Your task to perform on an android device: turn on priority inbox in the gmail app Image 0: 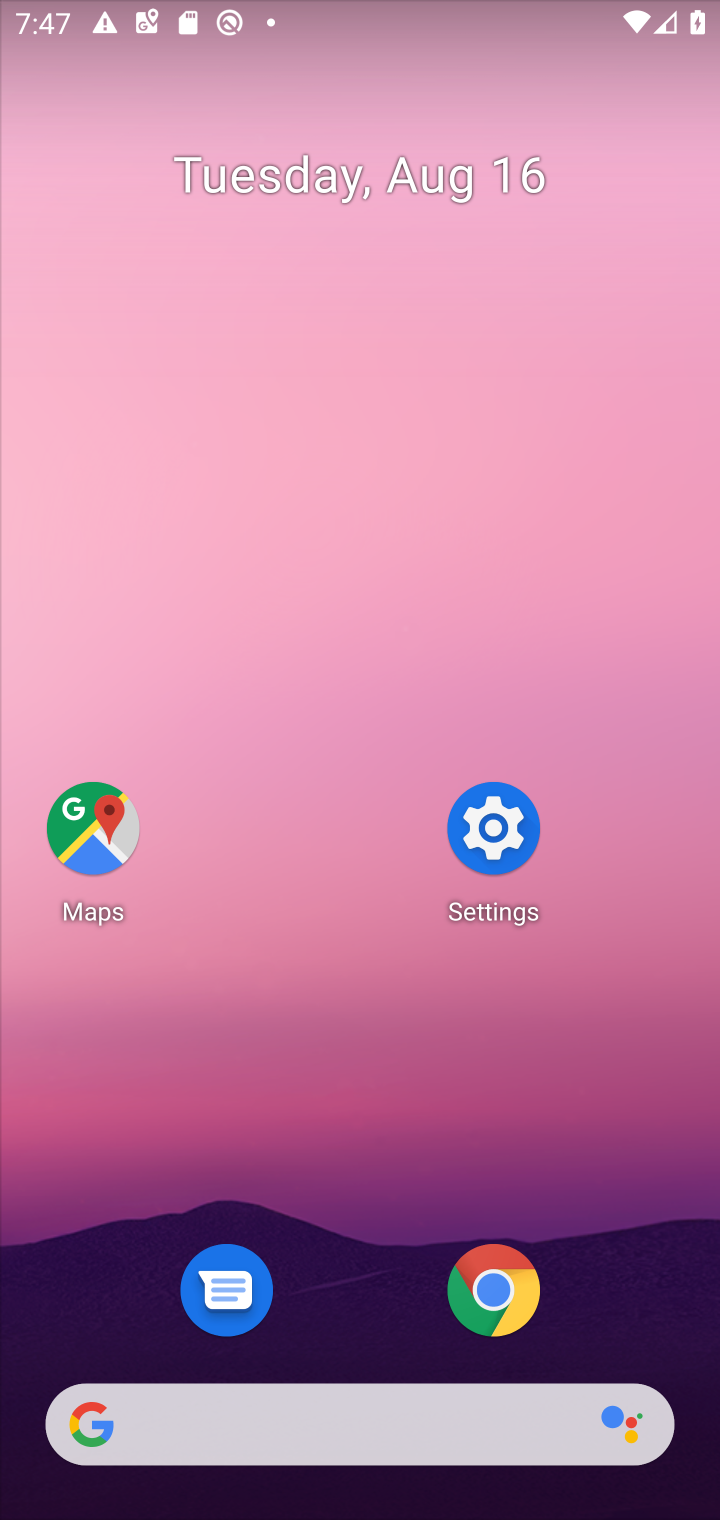
Step 0: drag from (388, 1355) to (687, 192)
Your task to perform on an android device: turn on priority inbox in the gmail app Image 1: 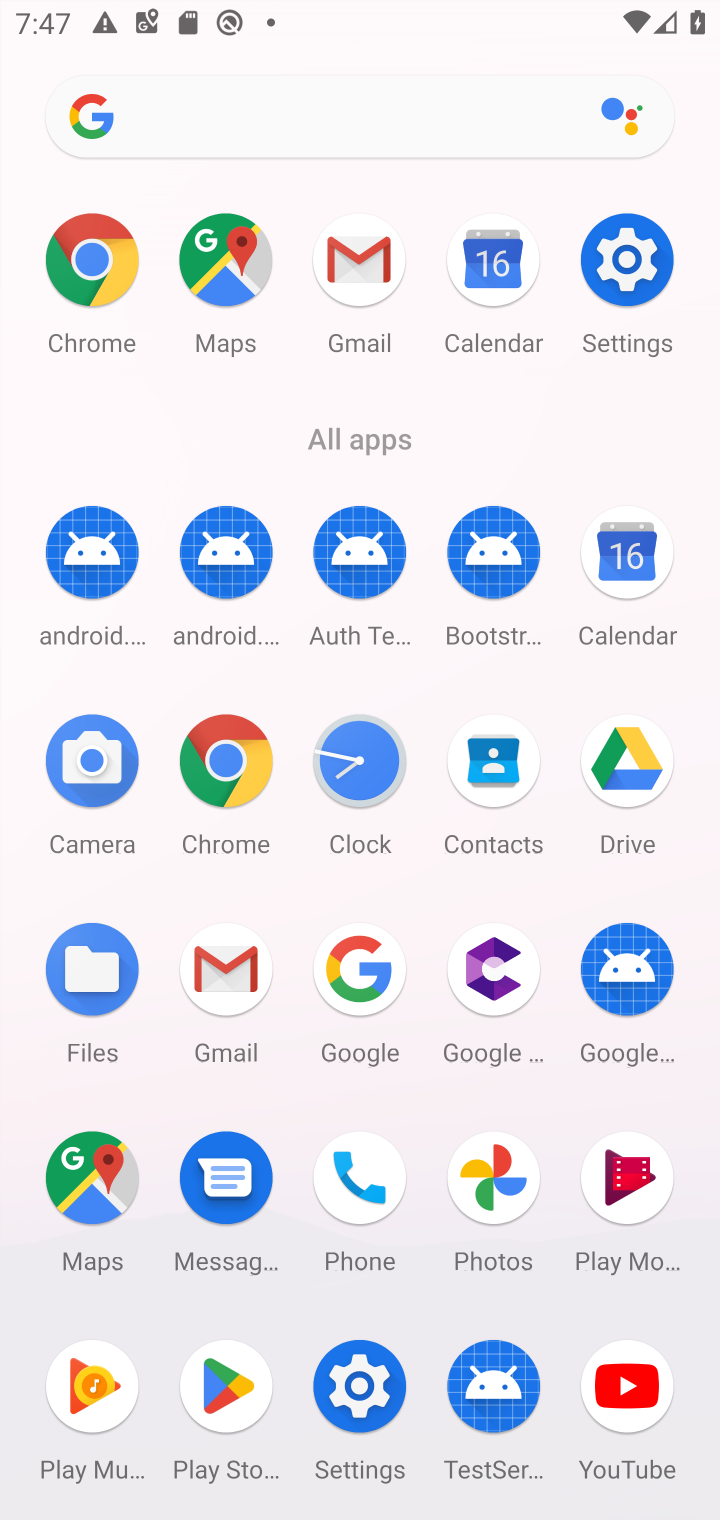
Step 1: click (368, 283)
Your task to perform on an android device: turn on priority inbox in the gmail app Image 2: 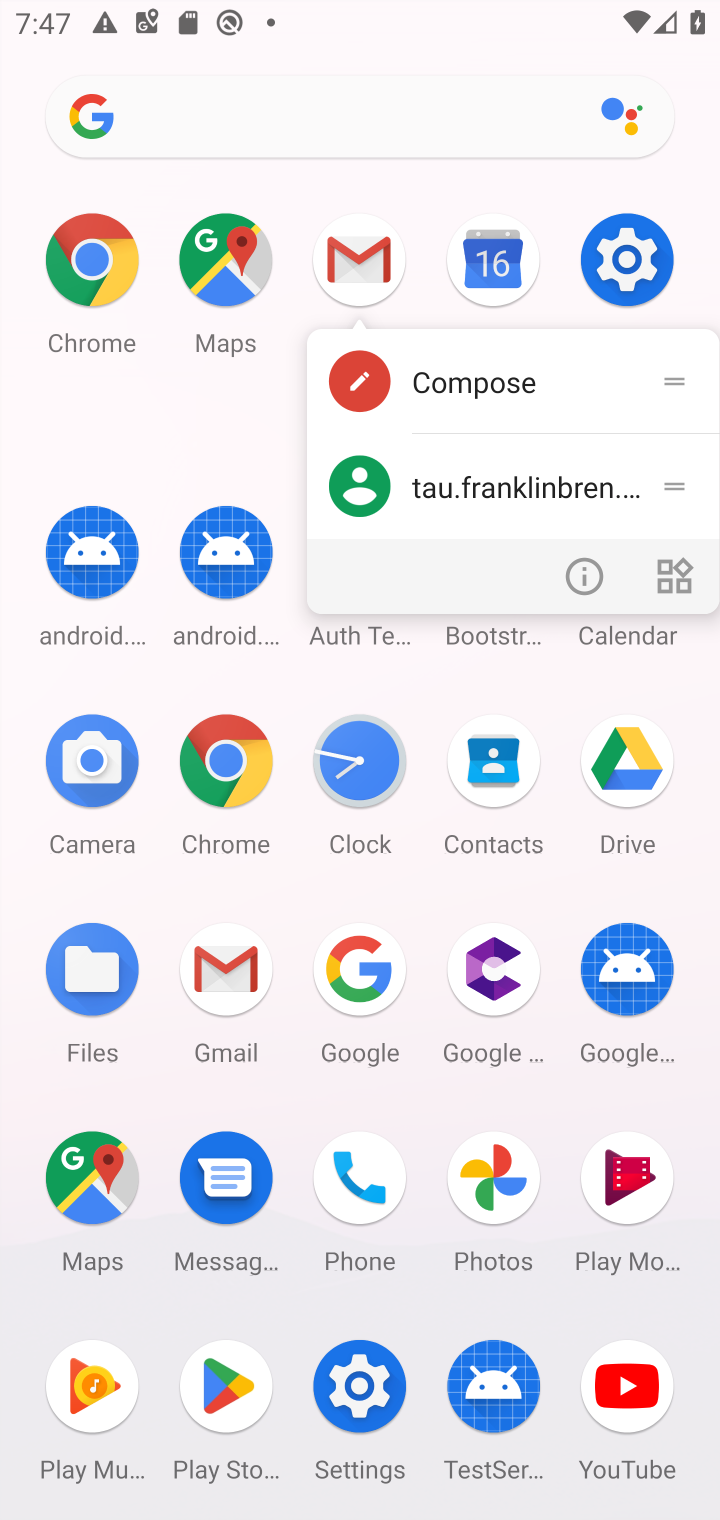
Step 2: click (355, 257)
Your task to perform on an android device: turn on priority inbox in the gmail app Image 3: 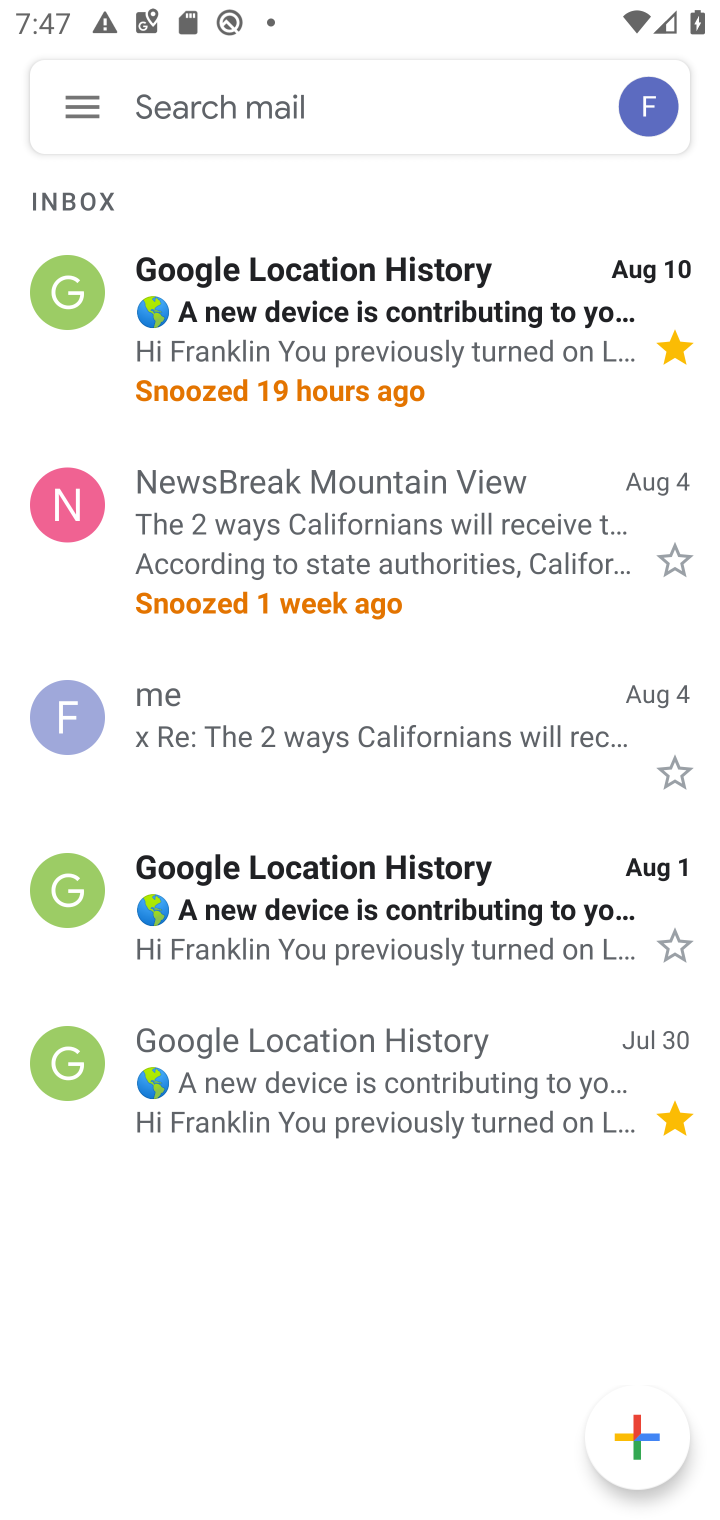
Step 3: click (81, 106)
Your task to perform on an android device: turn on priority inbox in the gmail app Image 4: 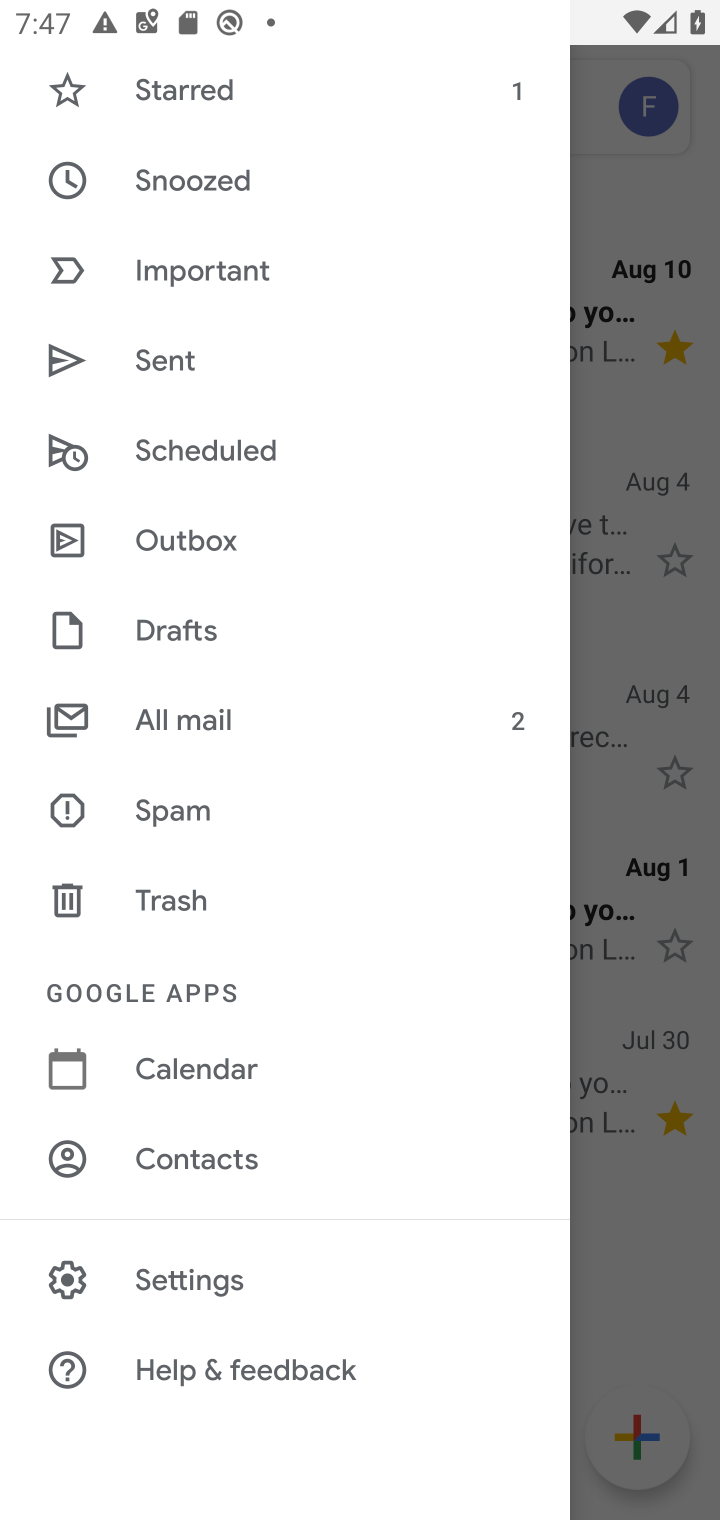
Step 4: click (206, 1279)
Your task to perform on an android device: turn on priority inbox in the gmail app Image 5: 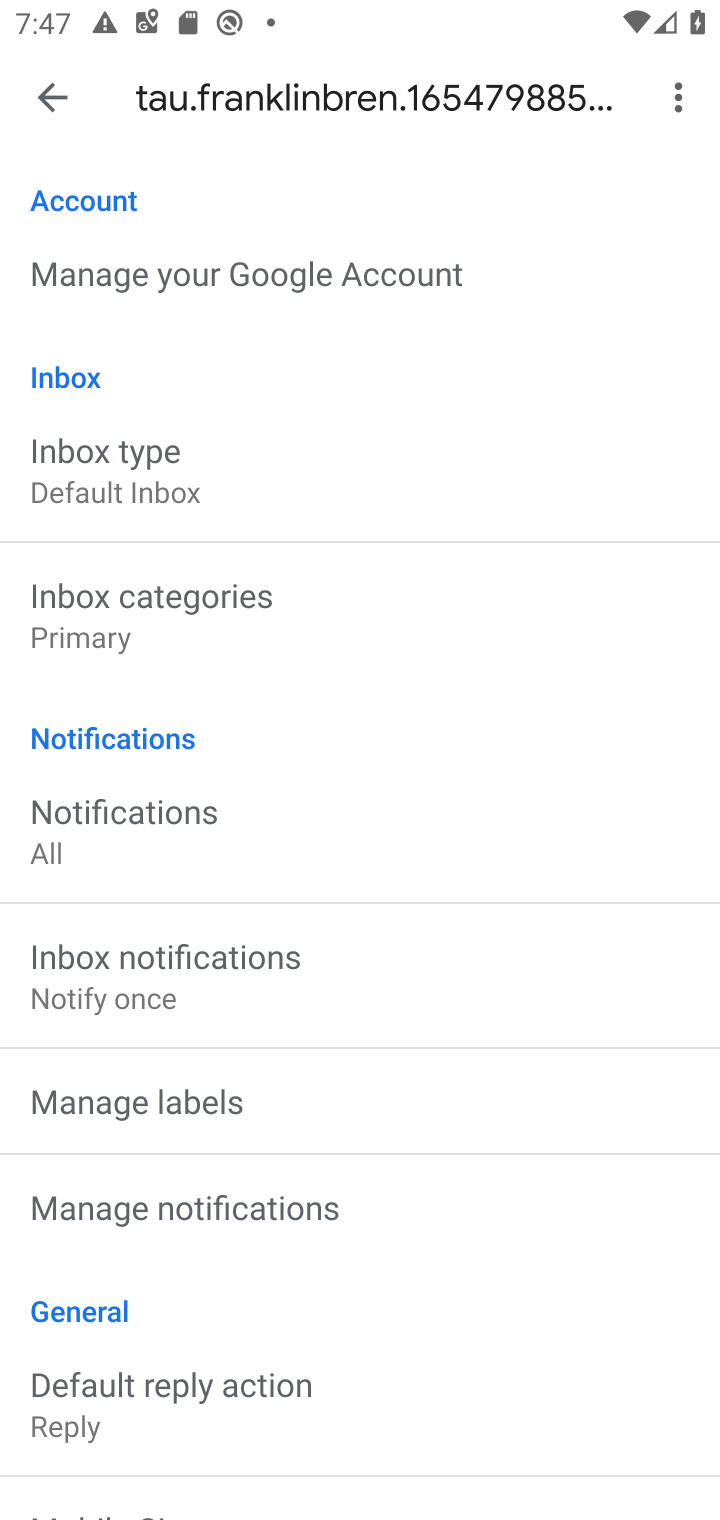
Step 5: click (107, 464)
Your task to perform on an android device: turn on priority inbox in the gmail app Image 6: 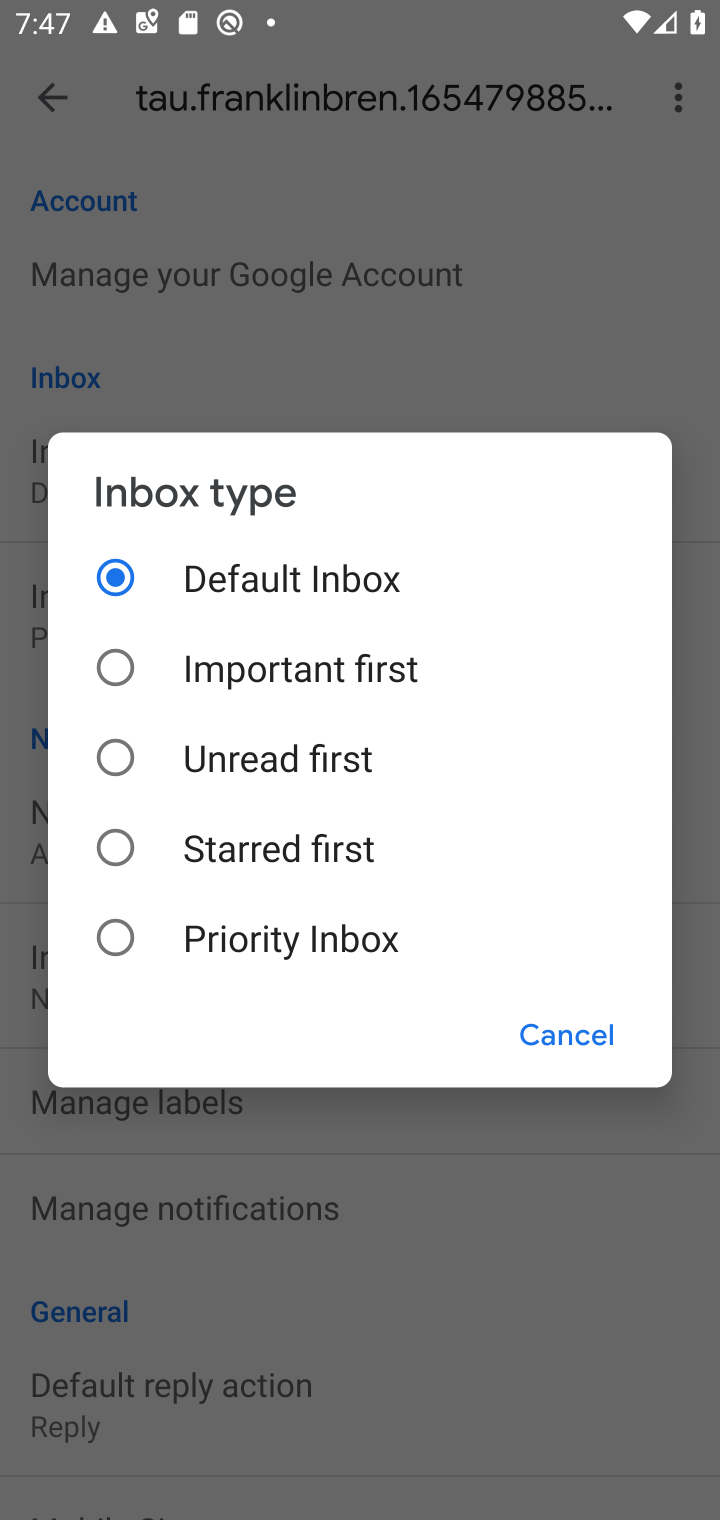
Step 6: click (106, 940)
Your task to perform on an android device: turn on priority inbox in the gmail app Image 7: 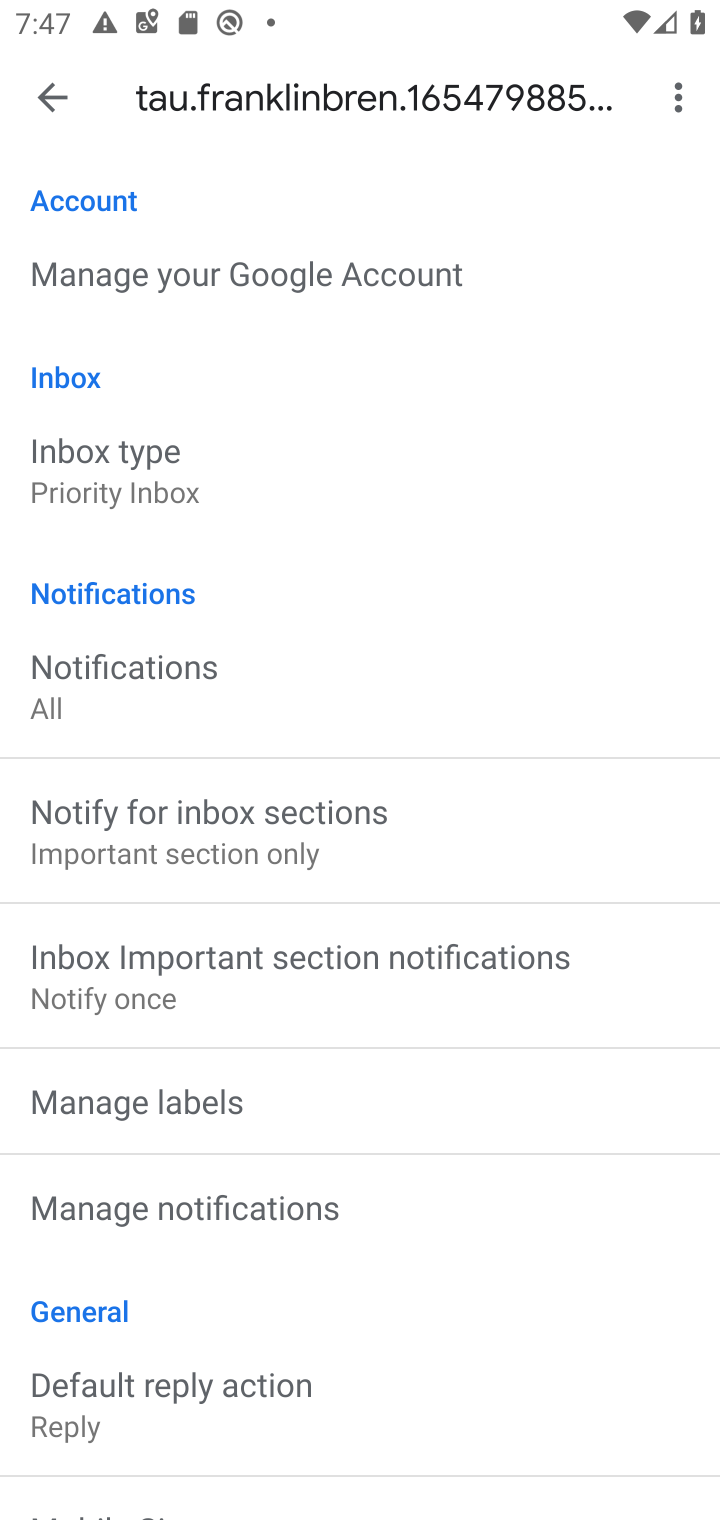
Step 7: task complete